Your task to perform on an android device: open app "Cash App" Image 0: 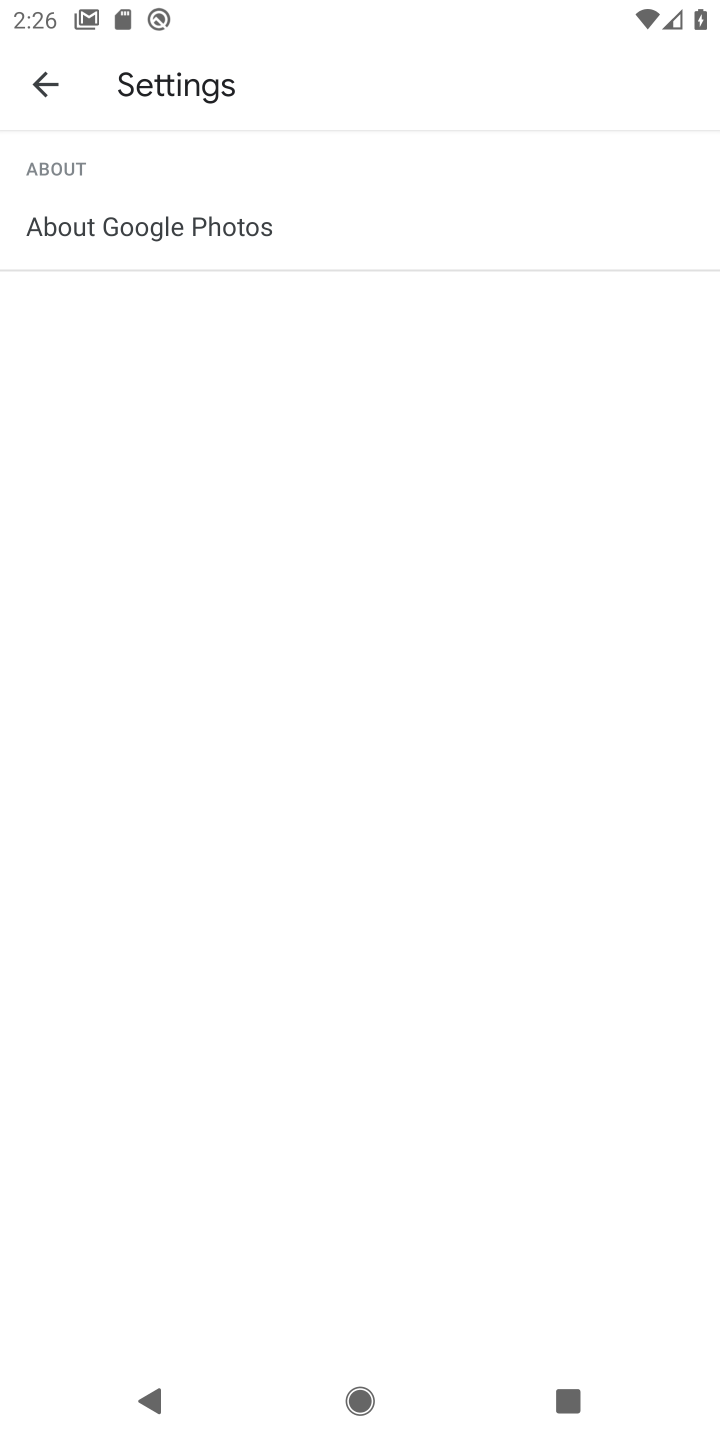
Step 0: press home button
Your task to perform on an android device: open app "Cash App" Image 1: 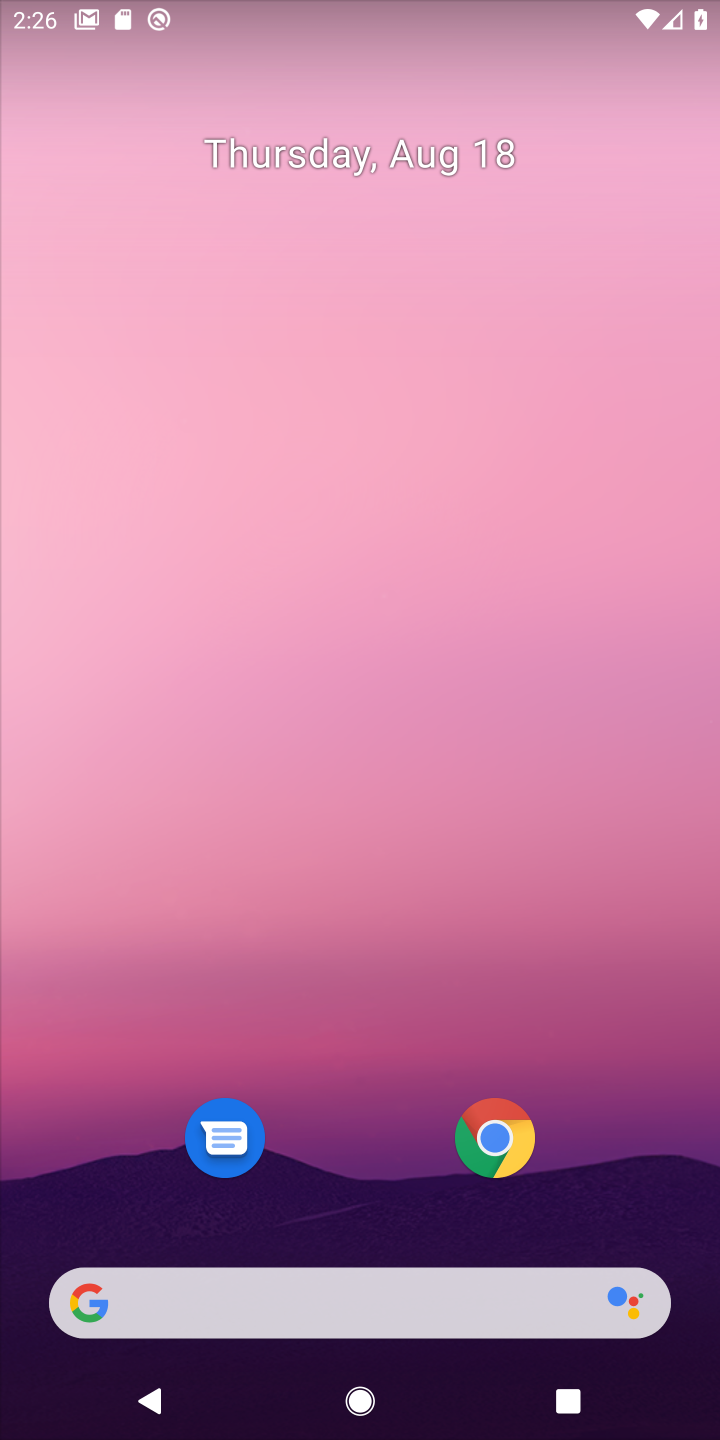
Step 1: drag from (462, 1169) to (439, 129)
Your task to perform on an android device: open app "Cash App" Image 2: 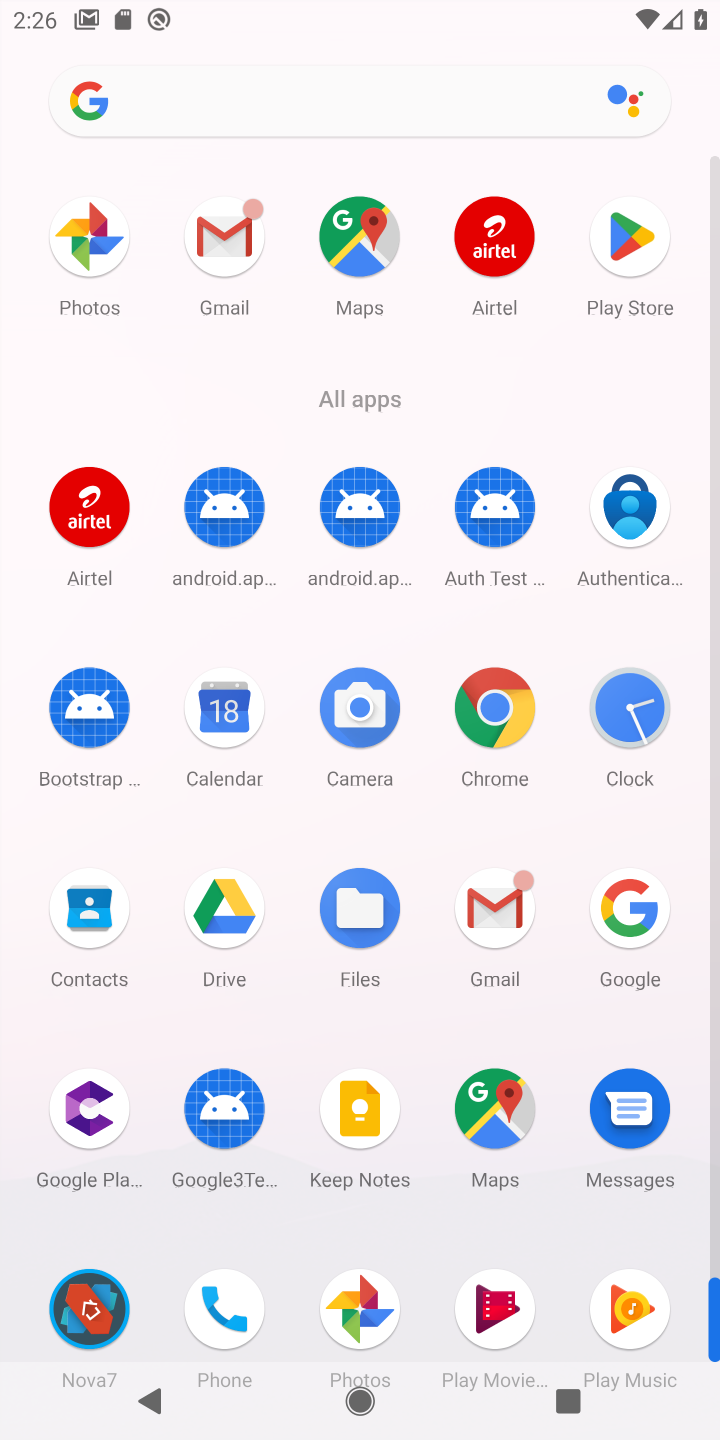
Step 2: click (646, 286)
Your task to perform on an android device: open app "Cash App" Image 3: 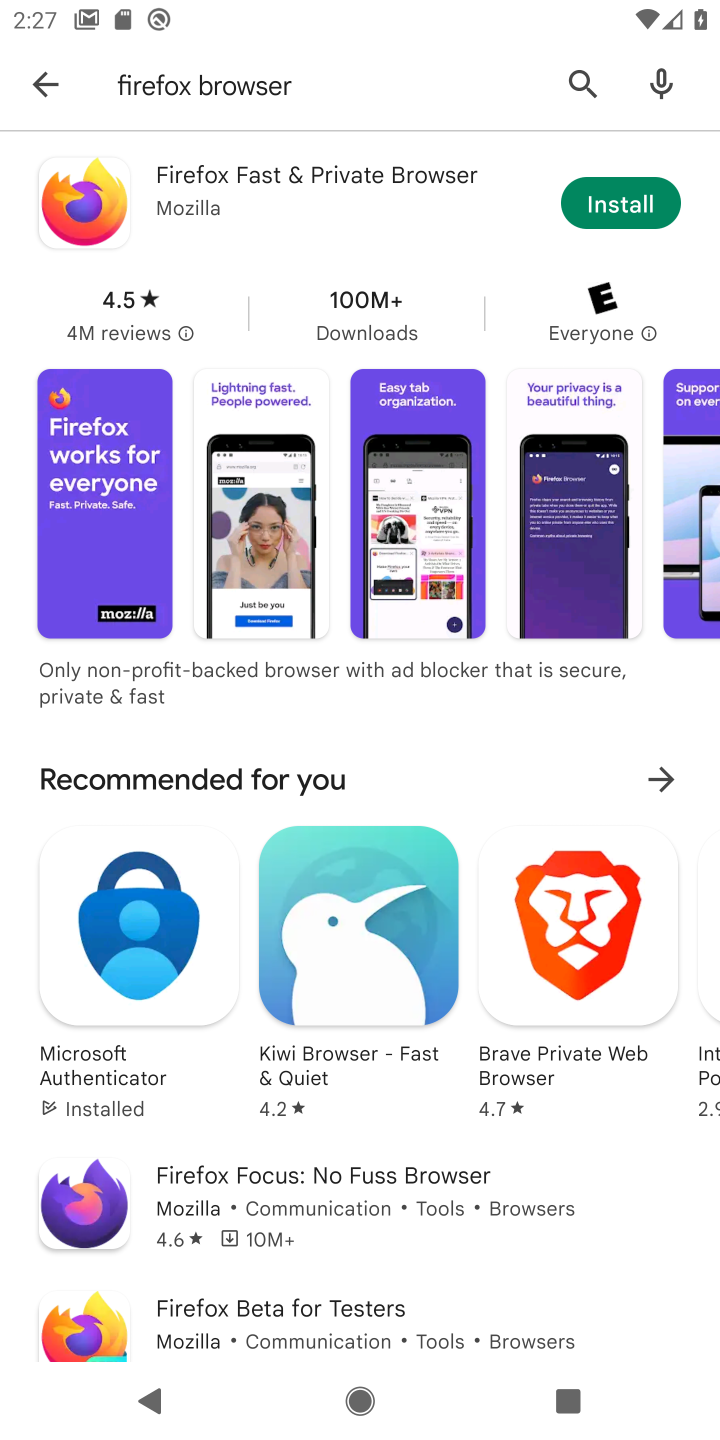
Step 3: click (54, 93)
Your task to perform on an android device: open app "Cash App" Image 4: 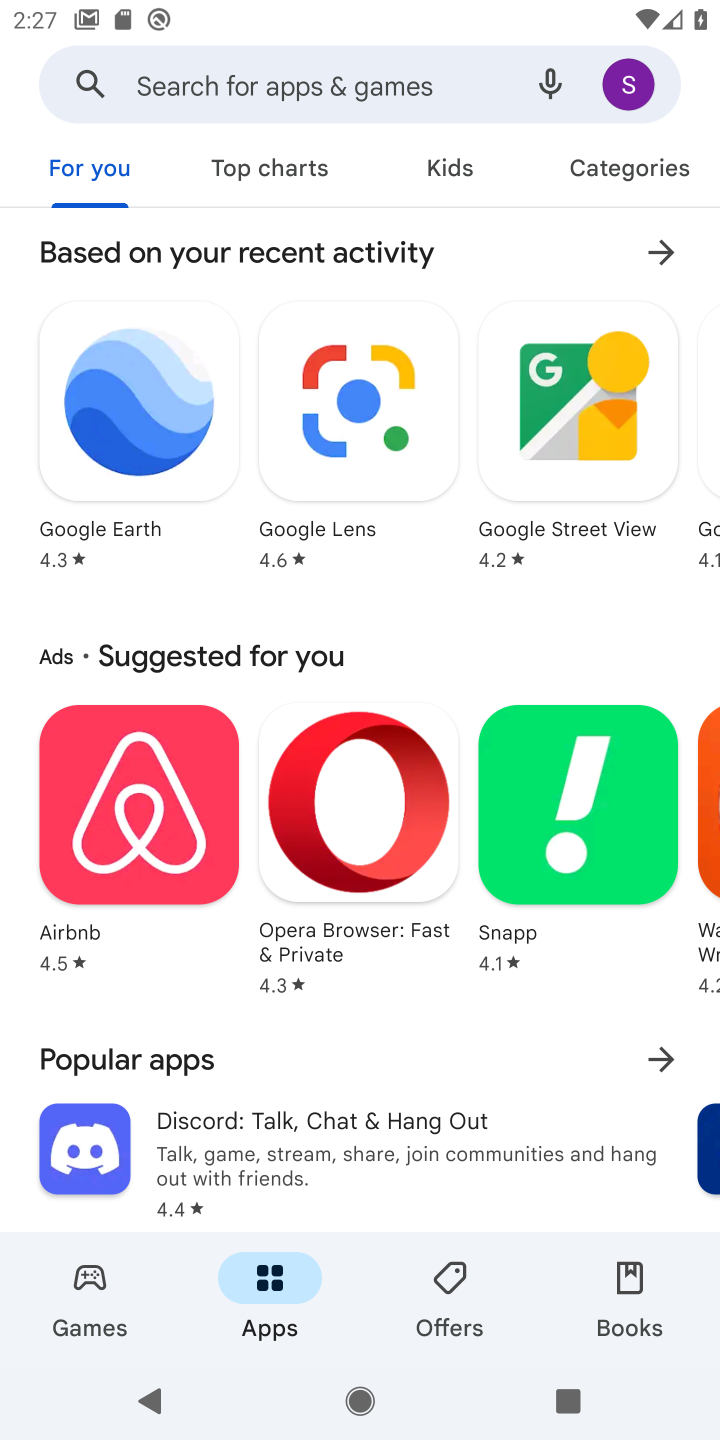
Step 4: task complete